Your task to perform on an android device: Go to sound settings Image 0: 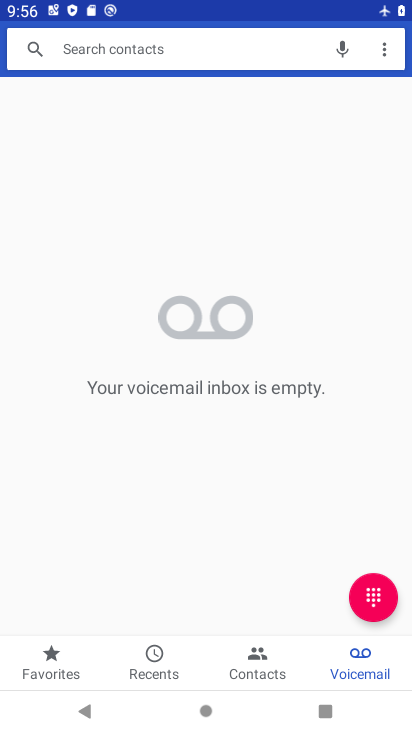
Step 0: press home button
Your task to perform on an android device: Go to sound settings Image 1: 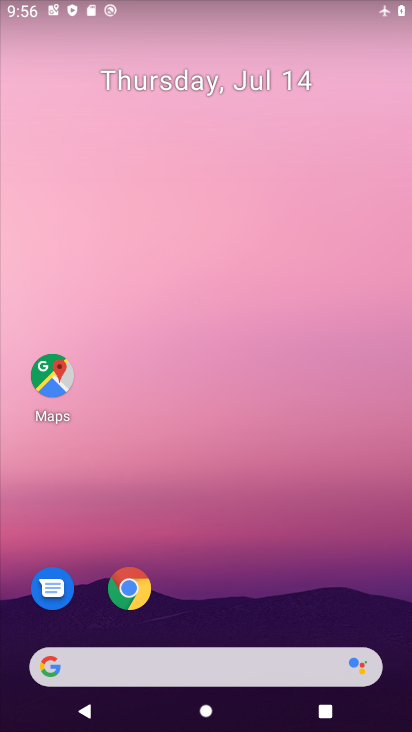
Step 1: drag from (357, 620) to (203, 16)
Your task to perform on an android device: Go to sound settings Image 2: 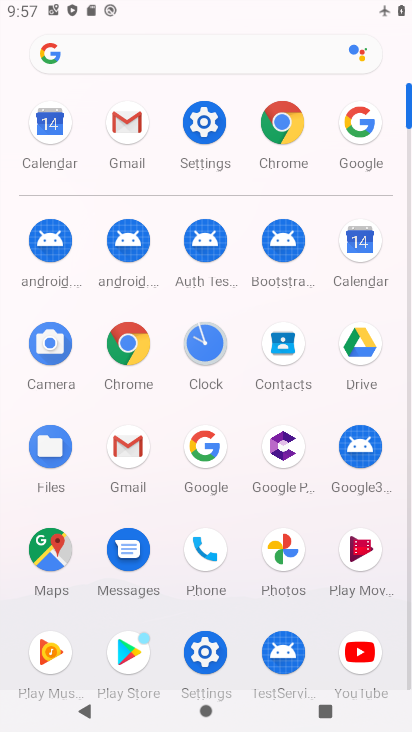
Step 2: click (210, 660)
Your task to perform on an android device: Go to sound settings Image 3: 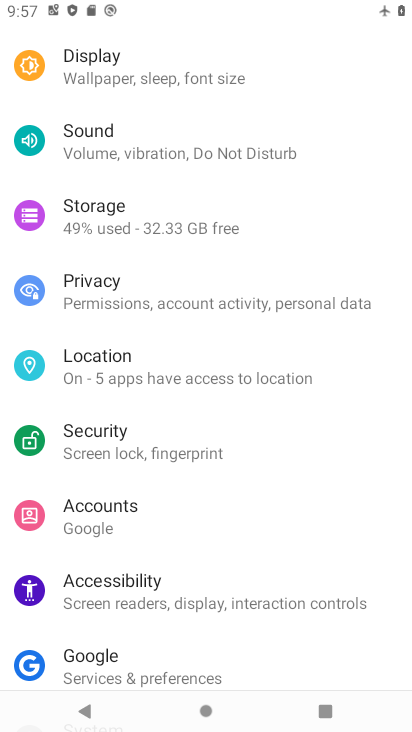
Step 3: click (116, 153)
Your task to perform on an android device: Go to sound settings Image 4: 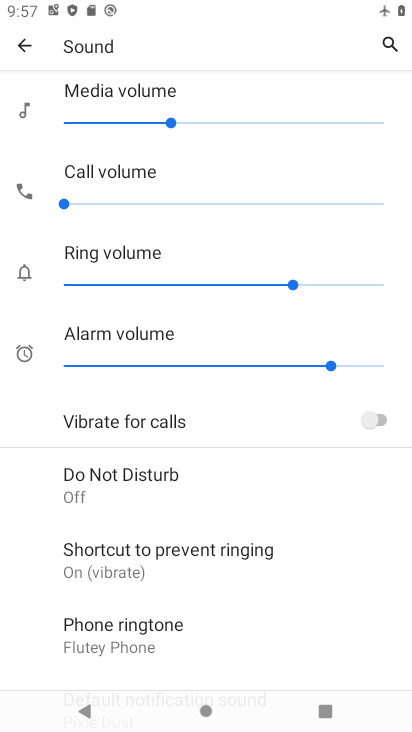
Step 4: task complete